Your task to perform on an android device: turn off javascript in the chrome app Image 0: 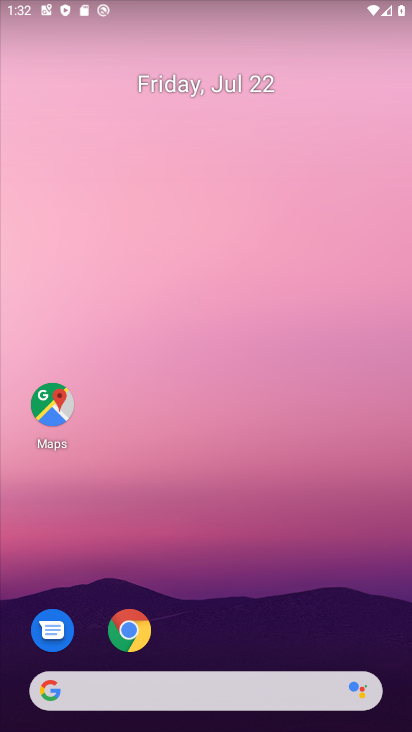
Step 0: click (130, 633)
Your task to perform on an android device: turn off javascript in the chrome app Image 1: 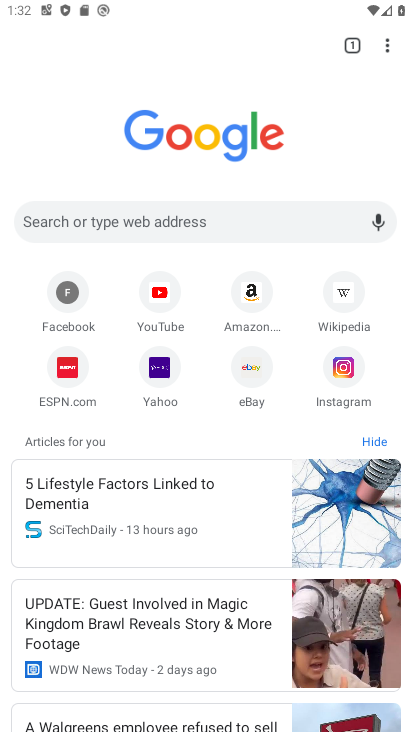
Step 1: click (388, 51)
Your task to perform on an android device: turn off javascript in the chrome app Image 2: 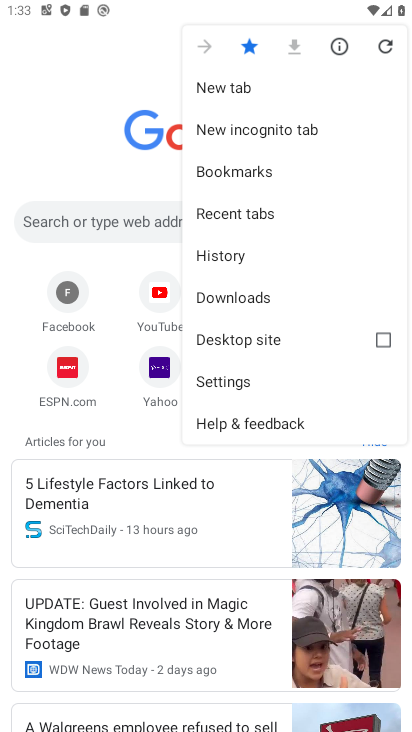
Step 2: click (200, 381)
Your task to perform on an android device: turn off javascript in the chrome app Image 3: 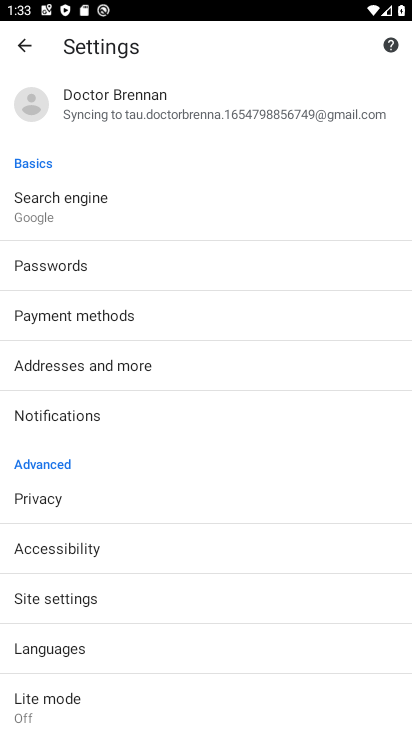
Step 3: click (69, 596)
Your task to perform on an android device: turn off javascript in the chrome app Image 4: 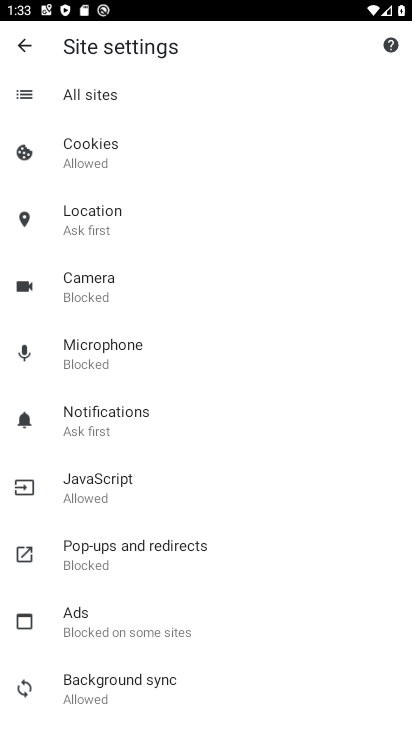
Step 4: click (87, 479)
Your task to perform on an android device: turn off javascript in the chrome app Image 5: 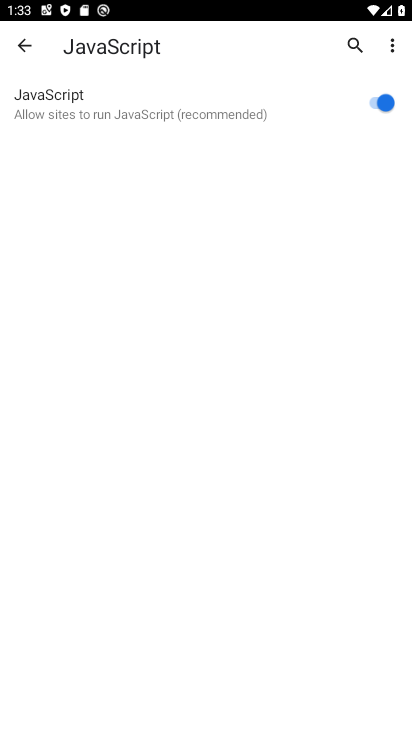
Step 5: click (371, 107)
Your task to perform on an android device: turn off javascript in the chrome app Image 6: 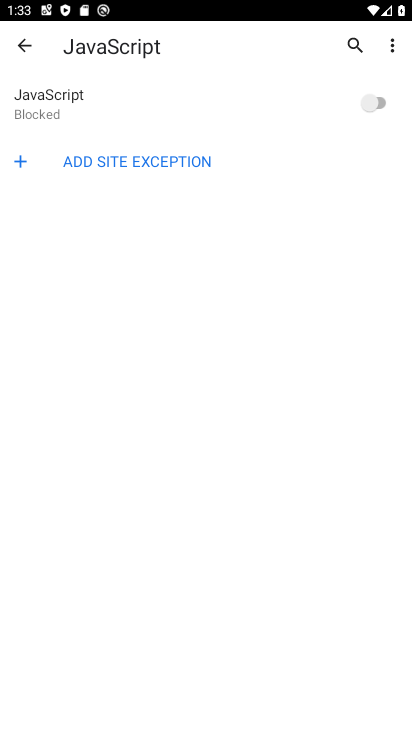
Step 6: task complete